Your task to perform on an android device: Open accessibility settings Image 0: 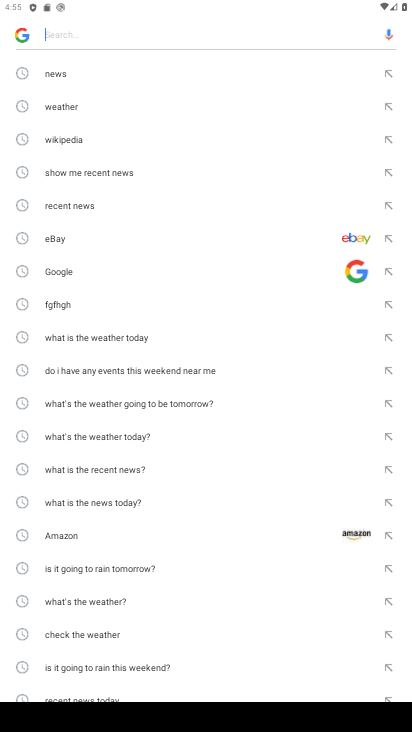
Step 0: press home button
Your task to perform on an android device: Open accessibility settings Image 1: 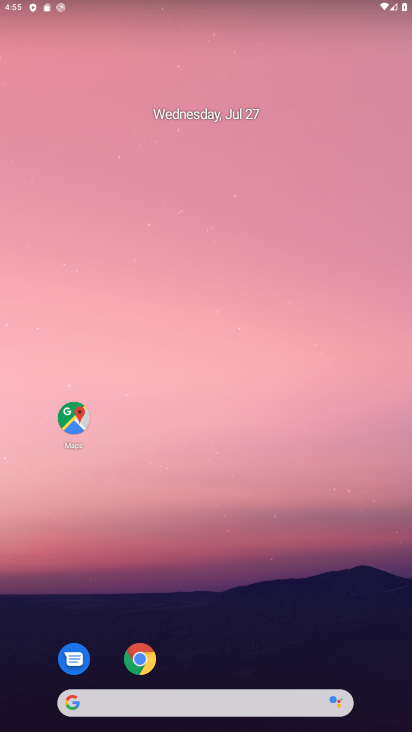
Step 1: drag from (130, 617) to (210, 22)
Your task to perform on an android device: Open accessibility settings Image 2: 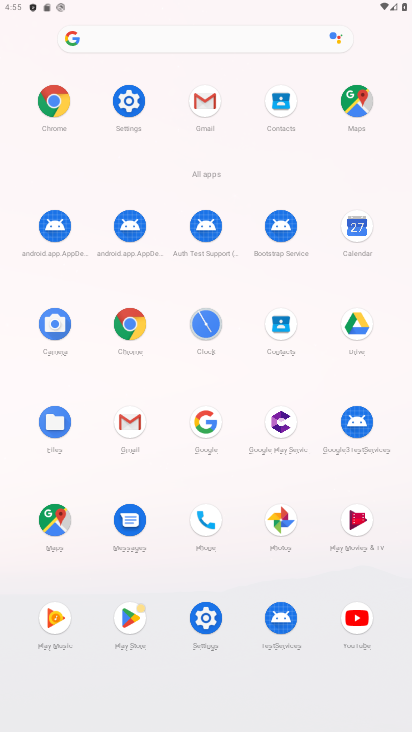
Step 2: click (118, 105)
Your task to perform on an android device: Open accessibility settings Image 3: 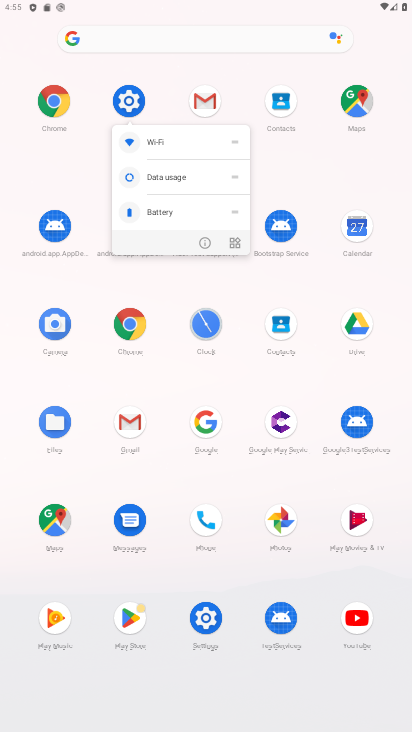
Step 3: click (125, 94)
Your task to perform on an android device: Open accessibility settings Image 4: 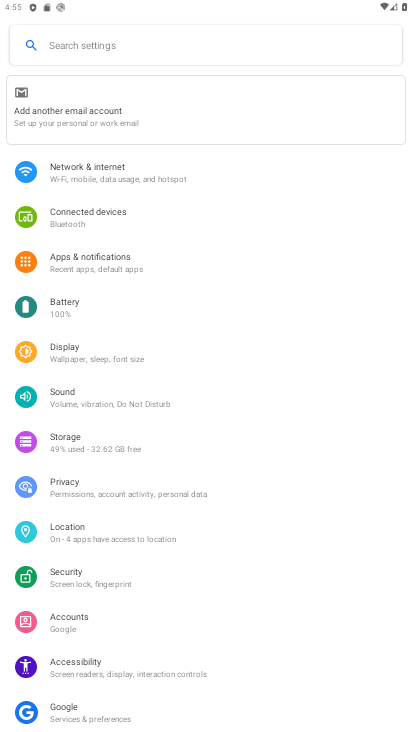
Step 4: click (61, 667)
Your task to perform on an android device: Open accessibility settings Image 5: 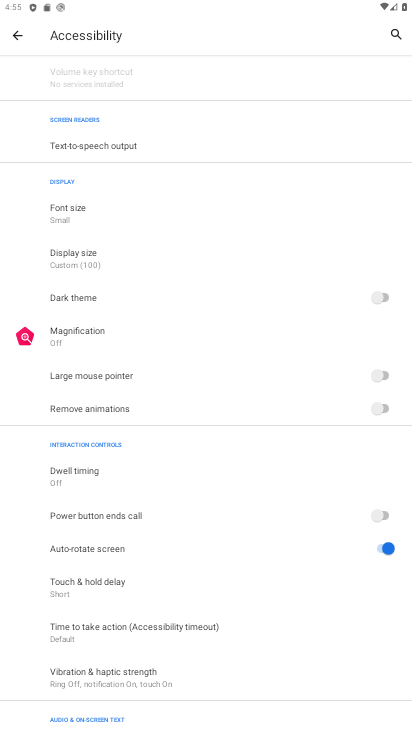
Step 5: task complete